Your task to perform on an android device: Open the stopwatch Image 0: 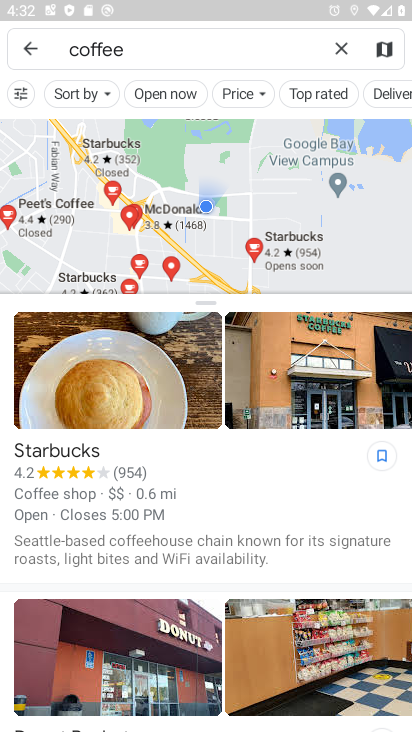
Step 0: press home button
Your task to perform on an android device: Open the stopwatch Image 1: 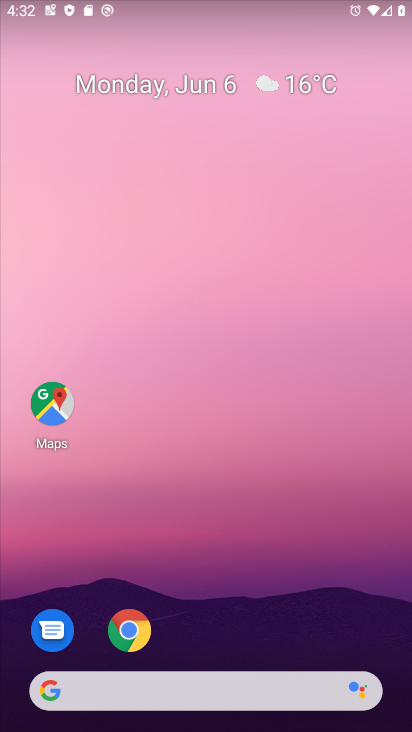
Step 1: drag from (280, 312) to (165, 56)
Your task to perform on an android device: Open the stopwatch Image 2: 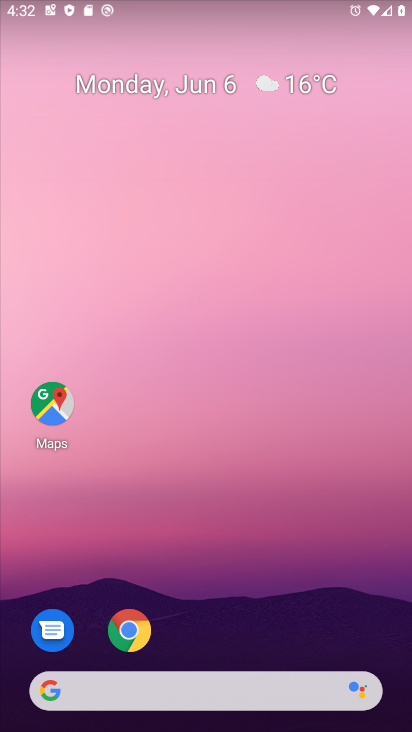
Step 2: drag from (272, 591) to (84, 3)
Your task to perform on an android device: Open the stopwatch Image 3: 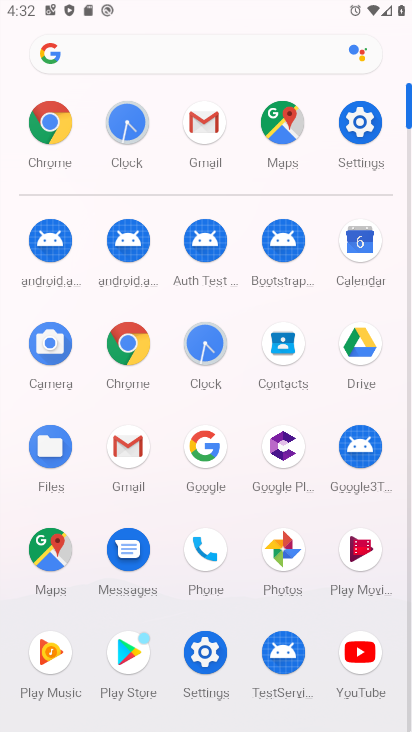
Step 3: click (124, 119)
Your task to perform on an android device: Open the stopwatch Image 4: 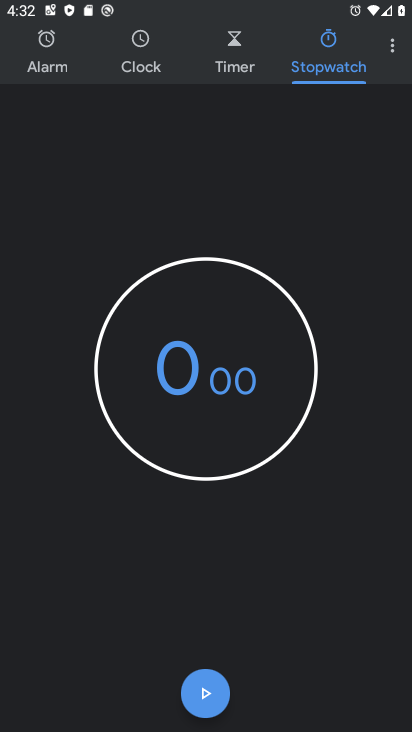
Step 4: task complete